Your task to perform on an android device: Open battery settings Image 0: 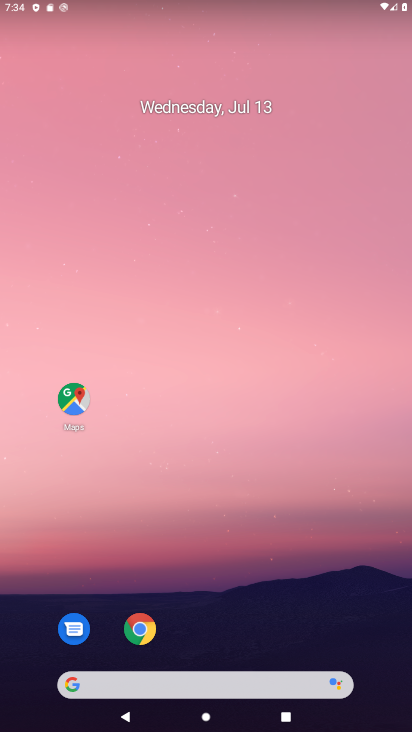
Step 0: drag from (274, 511) to (209, 4)
Your task to perform on an android device: Open battery settings Image 1: 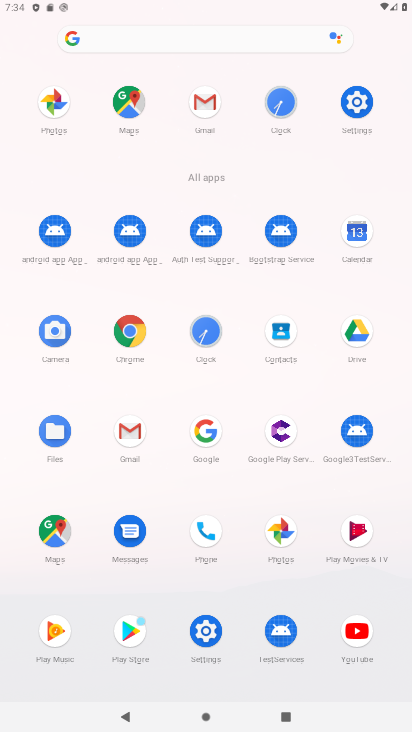
Step 1: click (364, 97)
Your task to perform on an android device: Open battery settings Image 2: 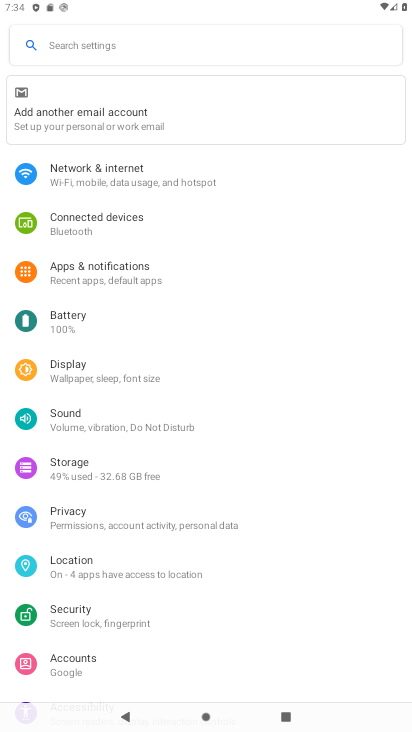
Step 2: click (67, 328)
Your task to perform on an android device: Open battery settings Image 3: 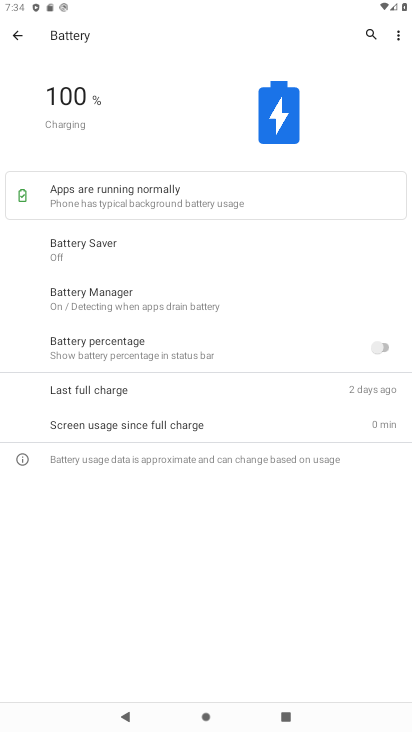
Step 3: task complete